Your task to perform on an android device: add a contact in the contacts app Image 0: 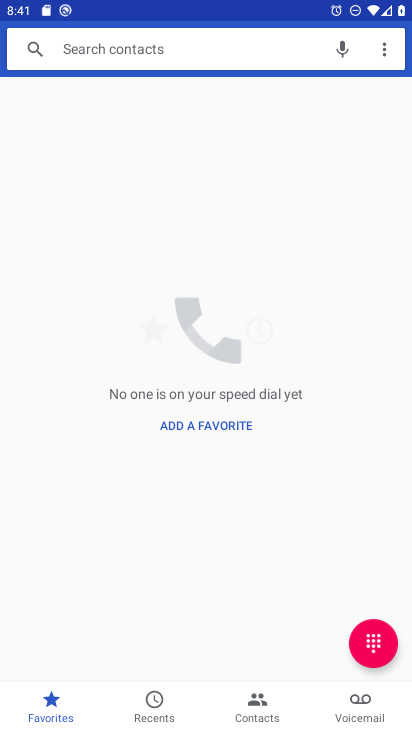
Step 0: click (270, 717)
Your task to perform on an android device: add a contact in the contacts app Image 1: 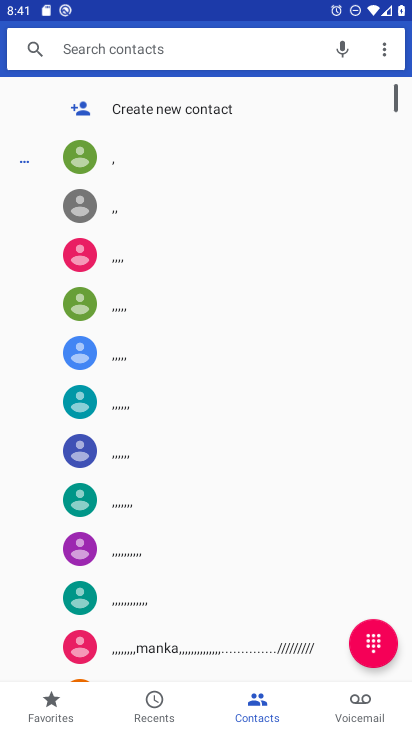
Step 1: click (246, 106)
Your task to perform on an android device: add a contact in the contacts app Image 2: 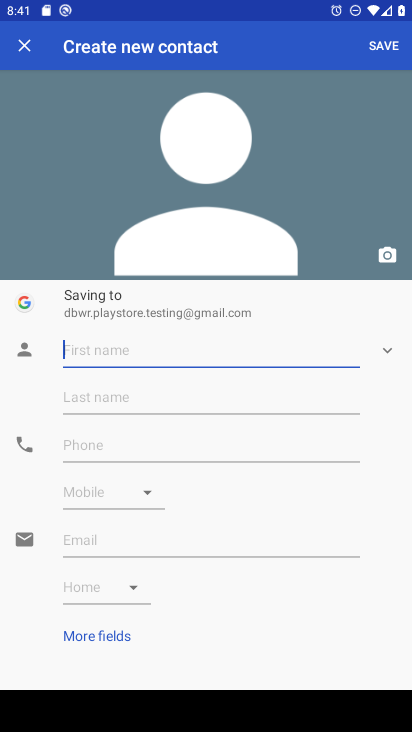
Step 2: type "ji"
Your task to perform on an android device: add a contact in the contacts app Image 3: 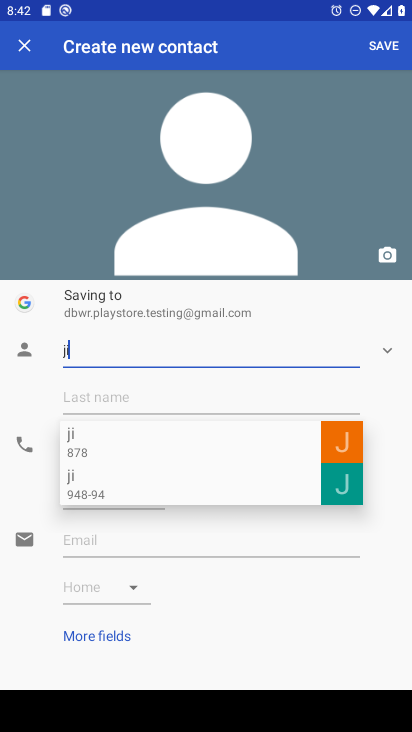
Step 3: click (135, 450)
Your task to perform on an android device: add a contact in the contacts app Image 4: 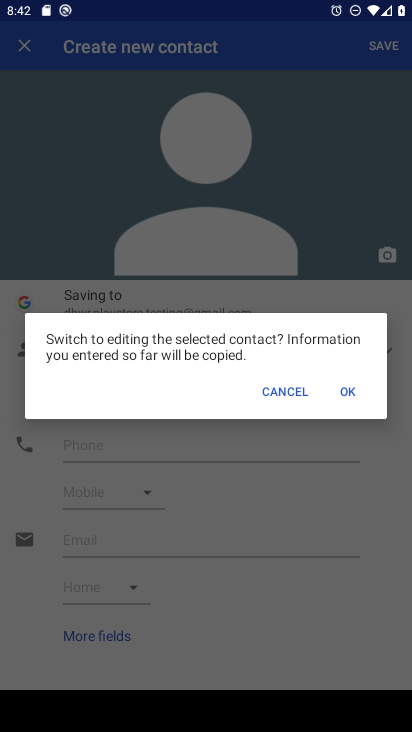
Step 4: click (300, 386)
Your task to perform on an android device: add a contact in the contacts app Image 5: 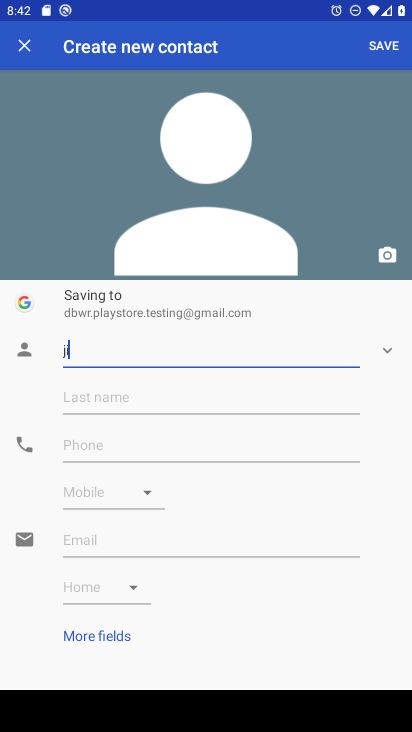
Step 5: type "jo"
Your task to perform on an android device: add a contact in the contacts app Image 6: 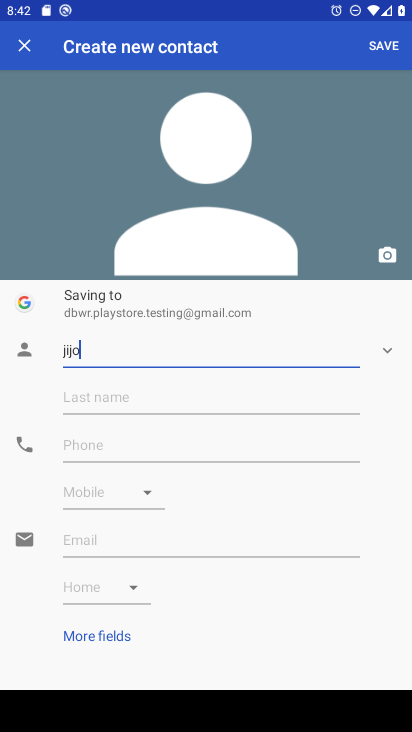
Step 6: click (99, 434)
Your task to perform on an android device: add a contact in the contacts app Image 7: 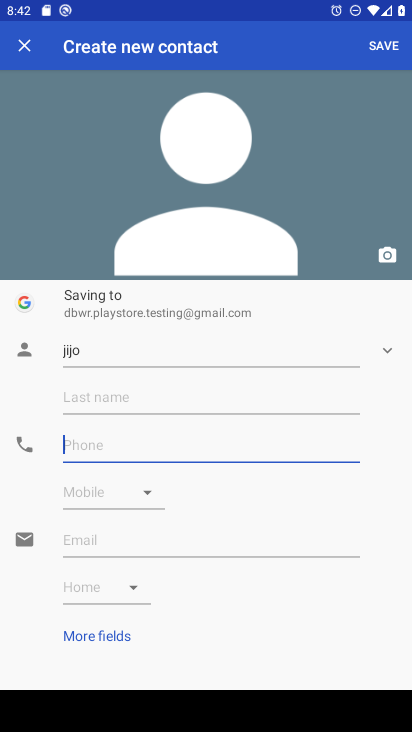
Step 7: type "654345678"
Your task to perform on an android device: add a contact in the contacts app Image 8: 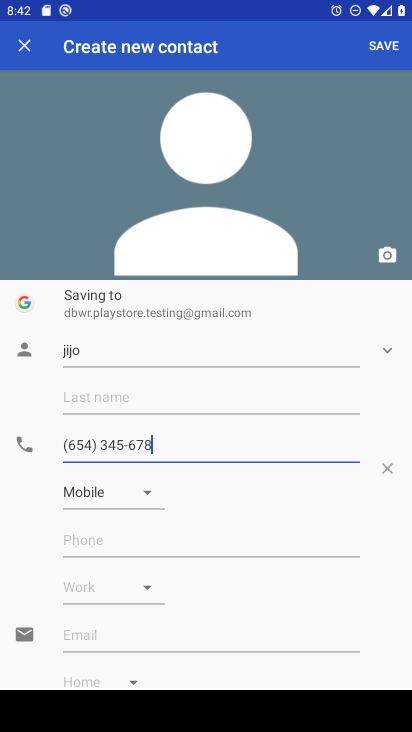
Step 8: click (373, 52)
Your task to perform on an android device: add a contact in the contacts app Image 9: 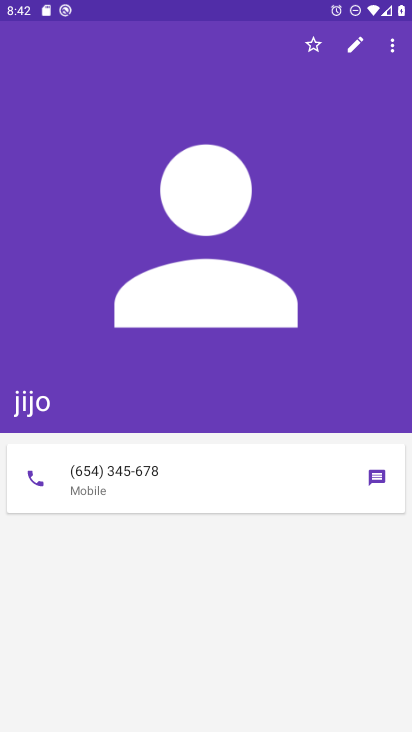
Step 9: task complete